Your task to perform on an android device: check out phone information Image 0: 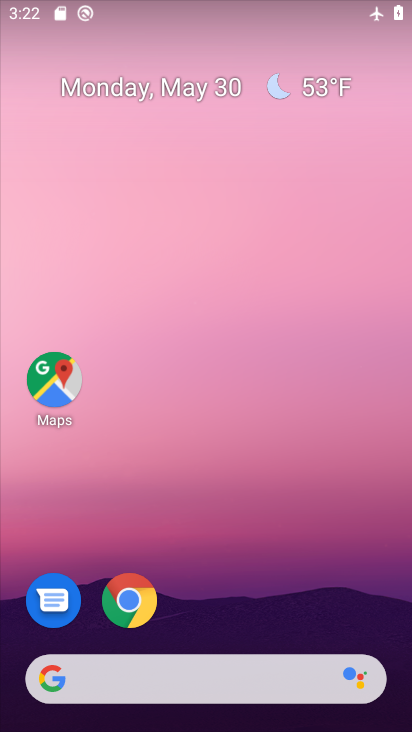
Step 0: drag from (315, 554) to (302, 107)
Your task to perform on an android device: check out phone information Image 1: 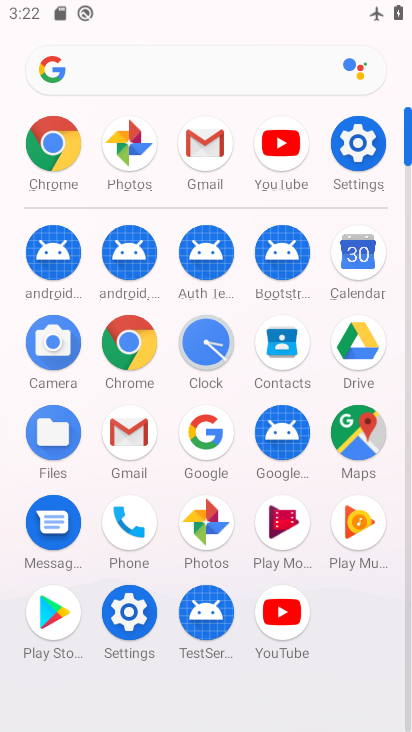
Step 1: click (361, 160)
Your task to perform on an android device: check out phone information Image 2: 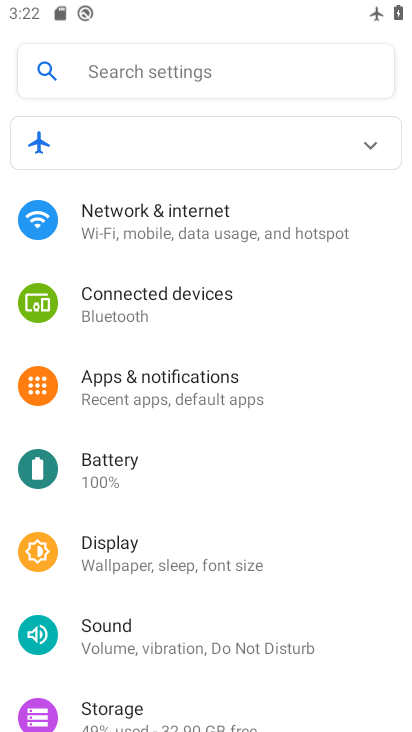
Step 2: drag from (186, 541) to (172, 127)
Your task to perform on an android device: check out phone information Image 3: 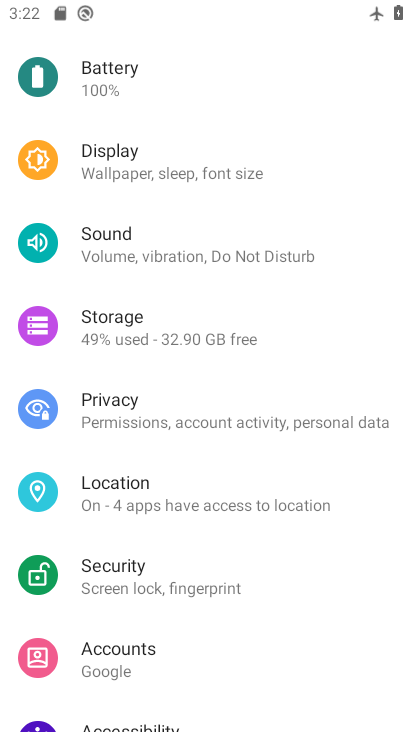
Step 3: drag from (180, 549) to (182, 158)
Your task to perform on an android device: check out phone information Image 4: 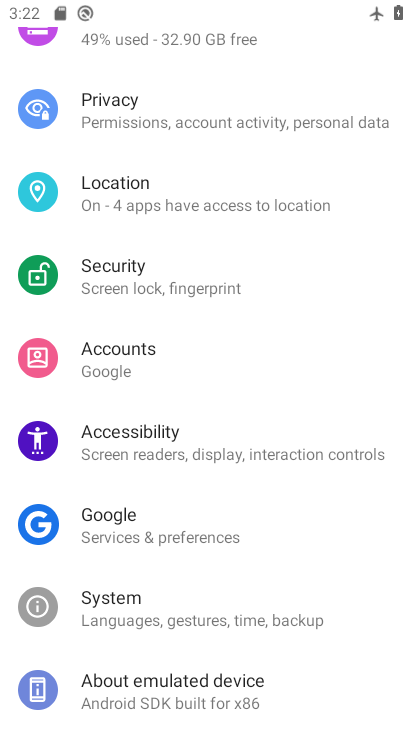
Step 4: drag from (202, 413) to (152, 39)
Your task to perform on an android device: check out phone information Image 5: 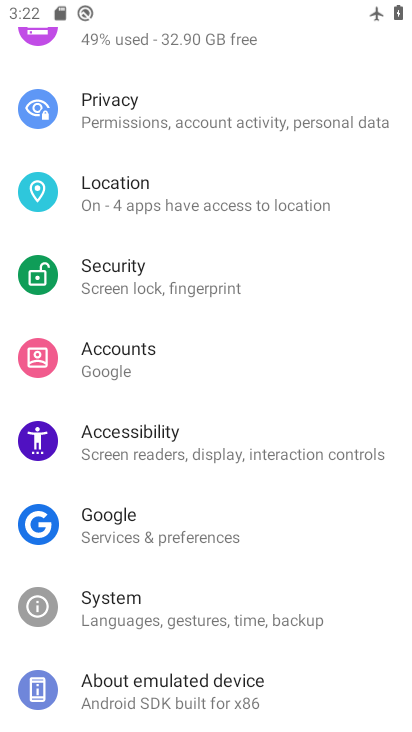
Step 5: click (189, 715)
Your task to perform on an android device: check out phone information Image 6: 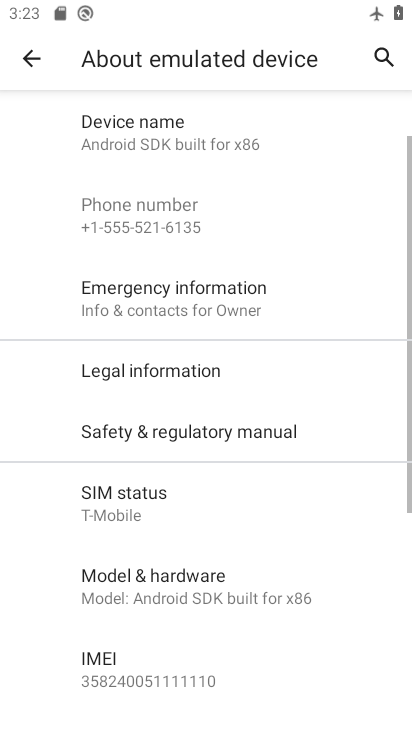
Step 6: task complete